Your task to perform on an android device: Open calendar and show me the first week of next month Image 0: 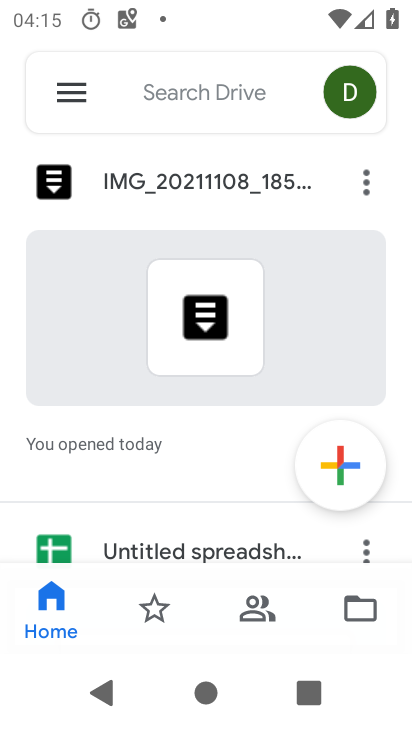
Step 0: press home button
Your task to perform on an android device: Open calendar and show me the first week of next month Image 1: 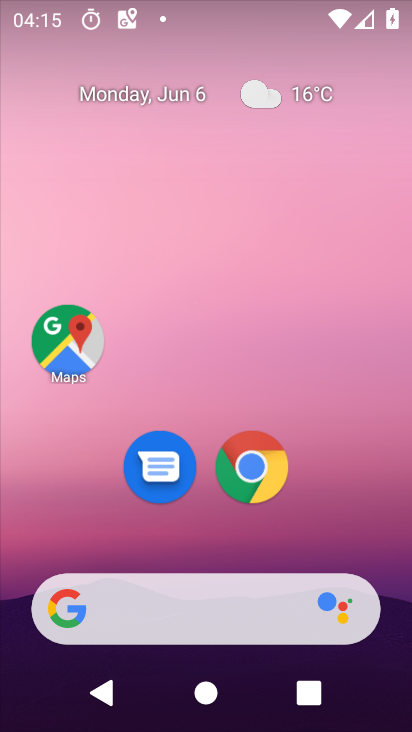
Step 1: drag from (203, 550) to (254, 117)
Your task to perform on an android device: Open calendar and show me the first week of next month Image 2: 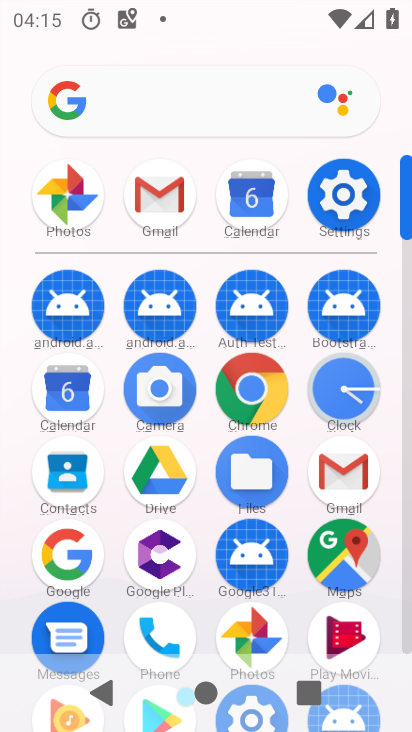
Step 2: click (64, 383)
Your task to perform on an android device: Open calendar and show me the first week of next month Image 3: 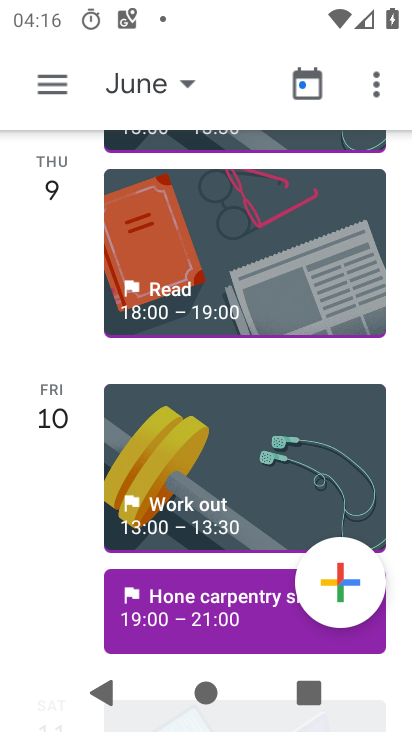
Step 3: click (57, 85)
Your task to perform on an android device: Open calendar and show me the first week of next month Image 4: 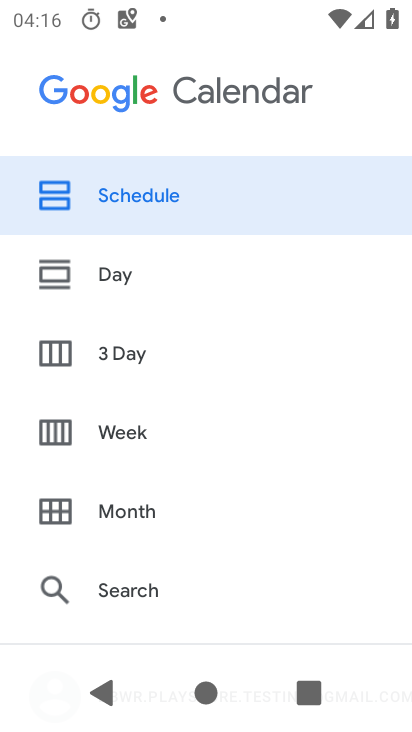
Step 4: click (79, 425)
Your task to perform on an android device: Open calendar and show me the first week of next month Image 5: 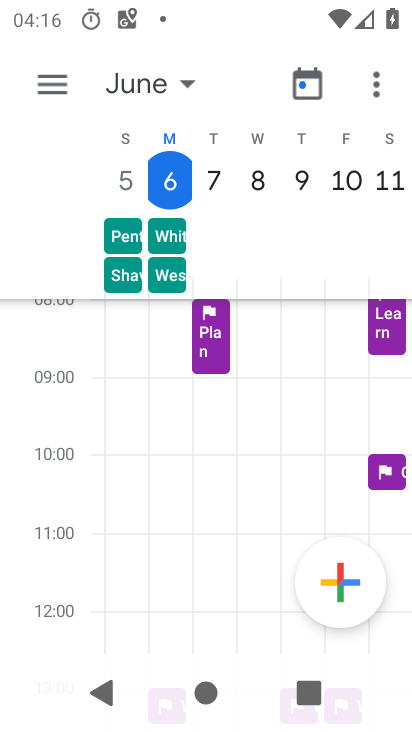
Step 5: click (56, 81)
Your task to perform on an android device: Open calendar and show me the first week of next month Image 6: 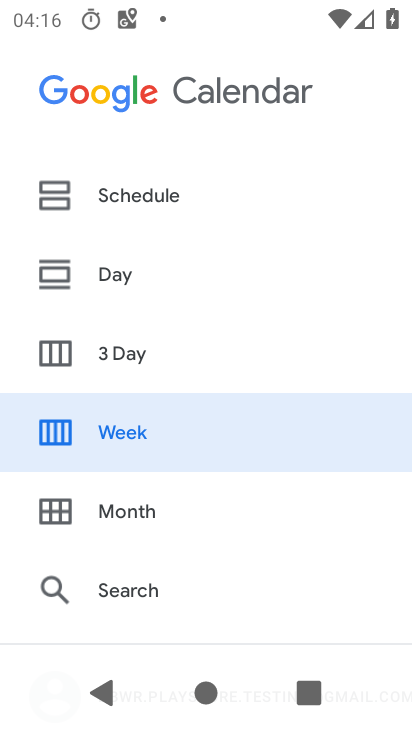
Step 6: click (129, 428)
Your task to perform on an android device: Open calendar and show me the first week of next month Image 7: 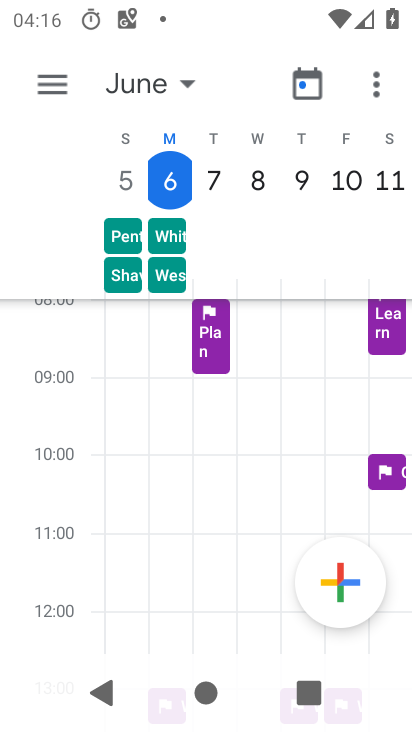
Step 7: click (188, 80)
Your task to perform on an android device: Open calendar and show me the first week of next month Image 8: 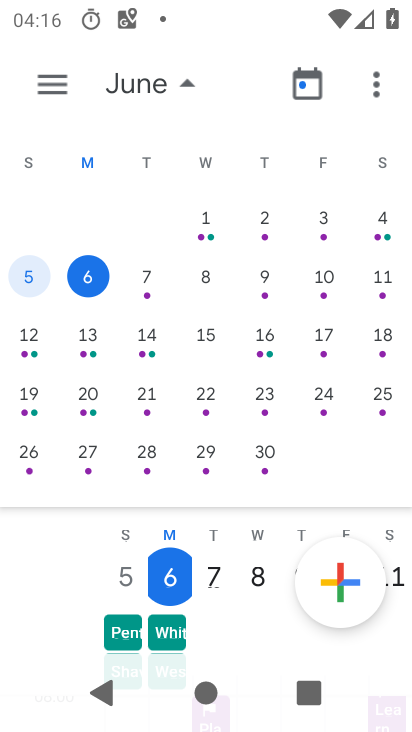
Step 8: drag from (357, 309) to (6, 312)
Your task to perform on an android device: Open calendar and show me the first week of next month Image 9: 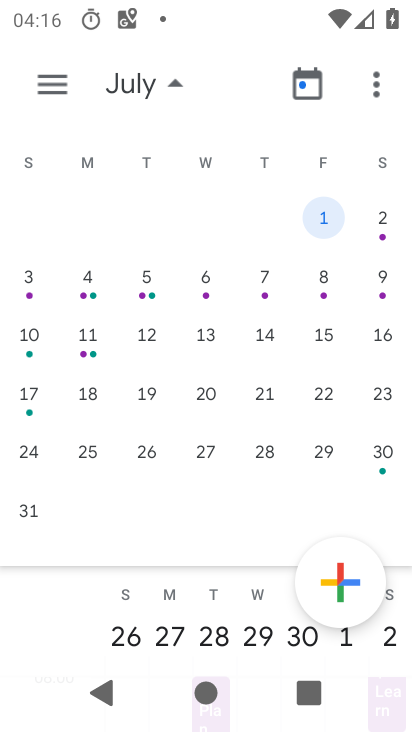
Step 9: click (37, 282)
Your task to perform on an android device: Open calendar and show me the first week of next month Image 10: 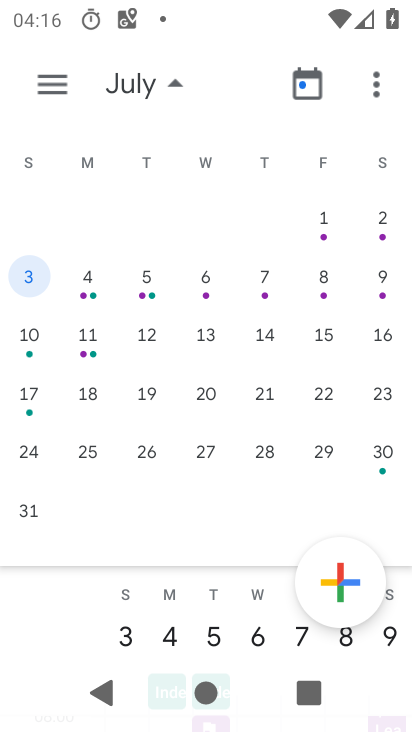
Step 10: click (166, 81)
Your task to perform on an android device: Open calendar and show me the first week of next month Image 11: 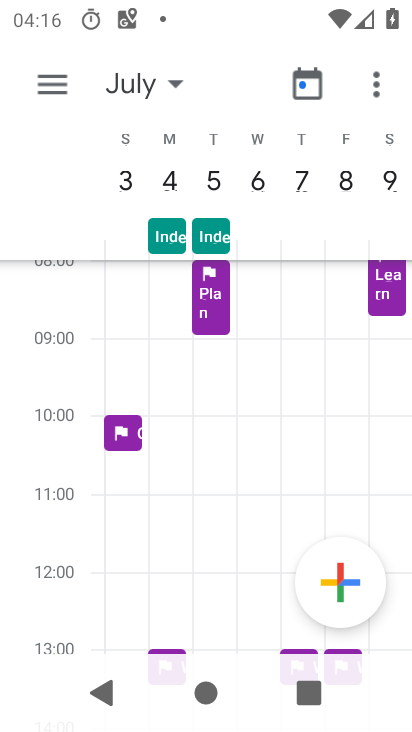
Step 11: click (126, 173)
Your task to perform on an android device: Open calendar and show me the first week of next month Image 12: 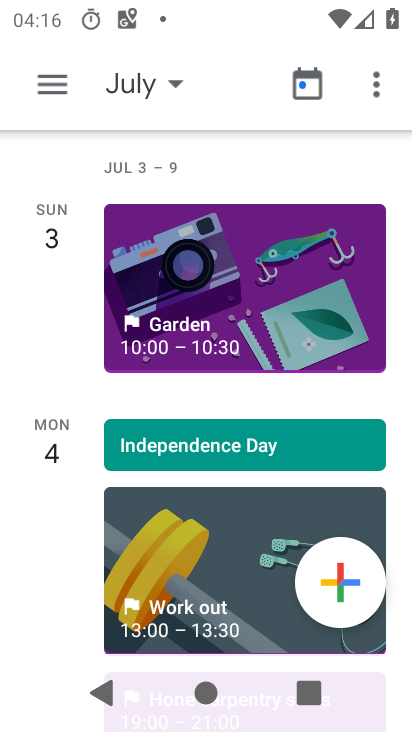
Step 12: task complete